Your task to perform on an android device: Go to sound settings Image 0: 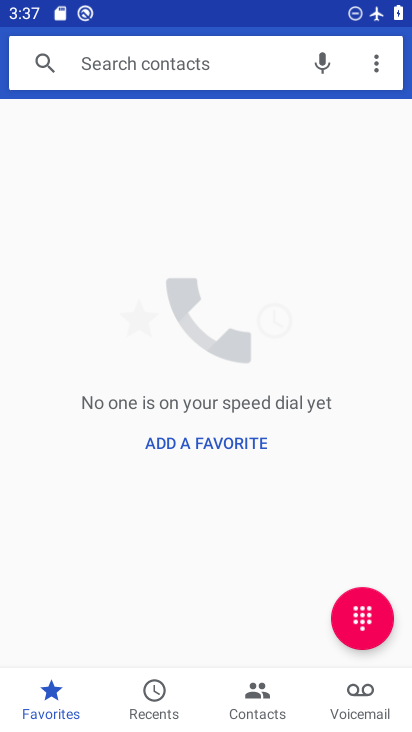
Step 0: press home button
Your task to perform on an android device: Go to sound settings Image 1: 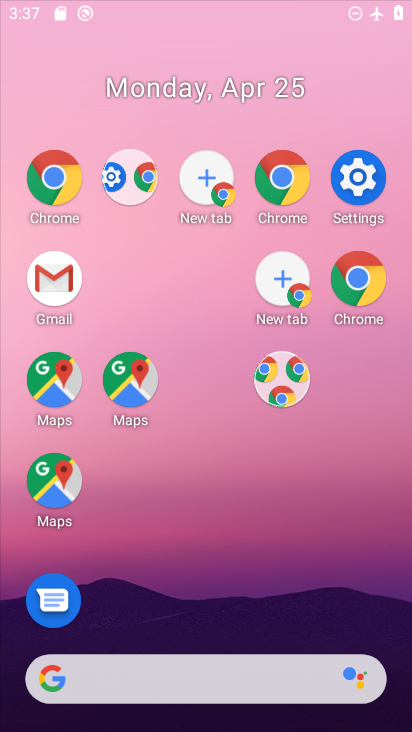
Step 1: press home button
Your task to perform on an android device: Go to sound settings Image 2: 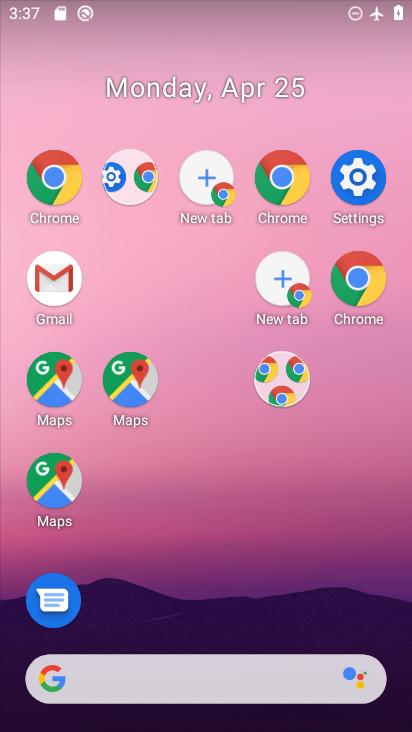
Step 2: press home button
Your task to perform on an android device: Go to sound settings Image 3: 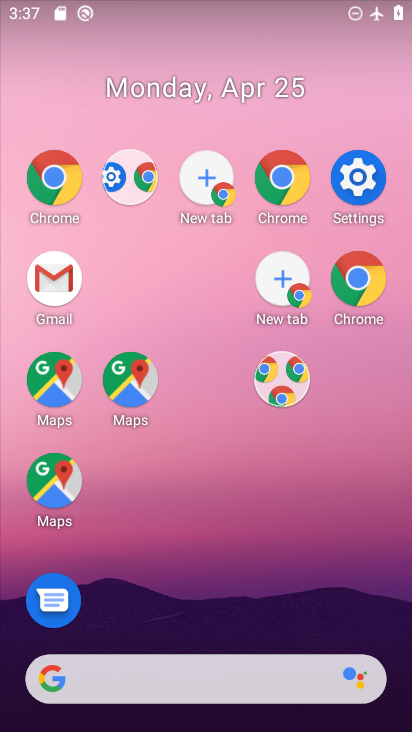
Step 3: drag from (196, 567) to (105, 103)
Your task to perform on an android device: Go to sound settings Image 4: 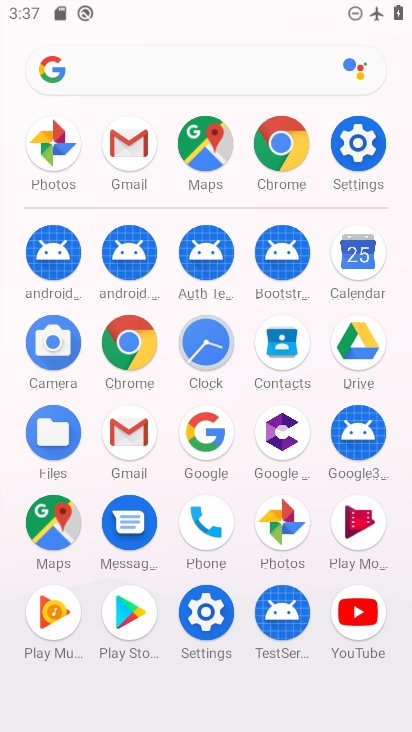
Step 4: click (364, 149)
Your task to perform on an android device: Go to sound settings Image 5: 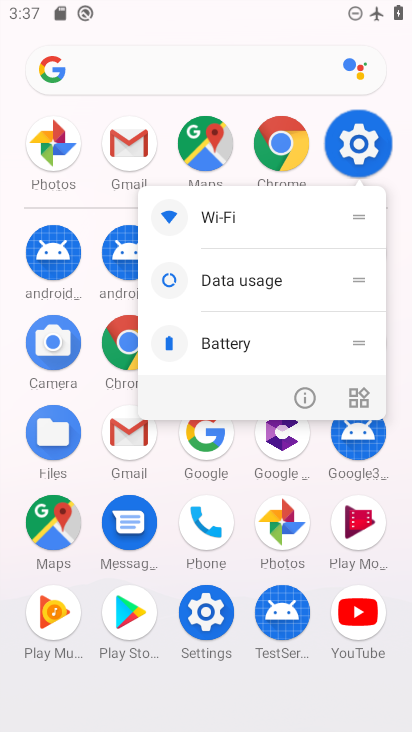
Step 5: click (347, 163)
Your task to perform on an android device: Go to sound settings Image 6: 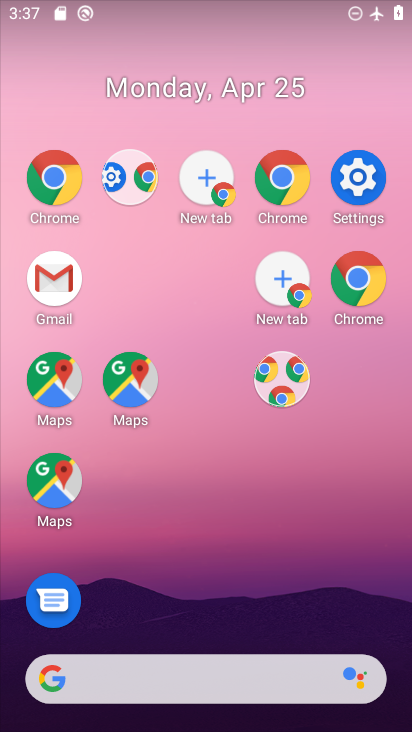
Step 6: drag from (195, 675) to (247, 7)
Your task to perform on an android device: Go to sound settings Image 7: 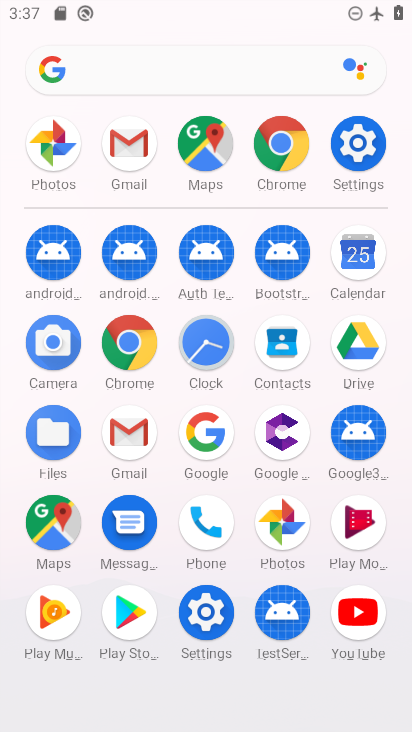
Step 7: click (362, 142)
Your task to perform on an android device: Go to sound settings Image 8: 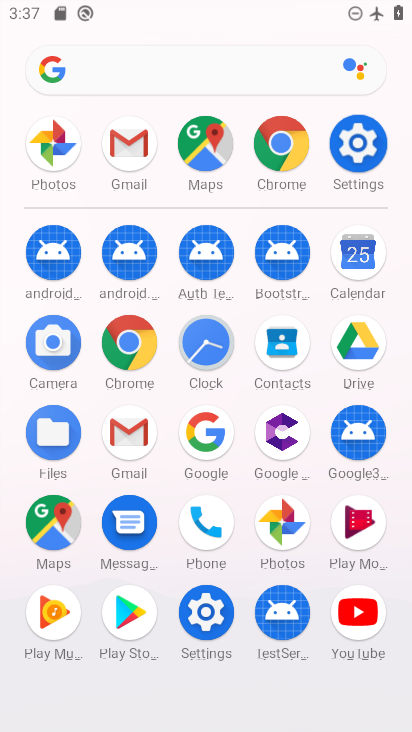
Step 8: click (364, 140)
Your task to perform on an android device: Go to sound settings Image 9: 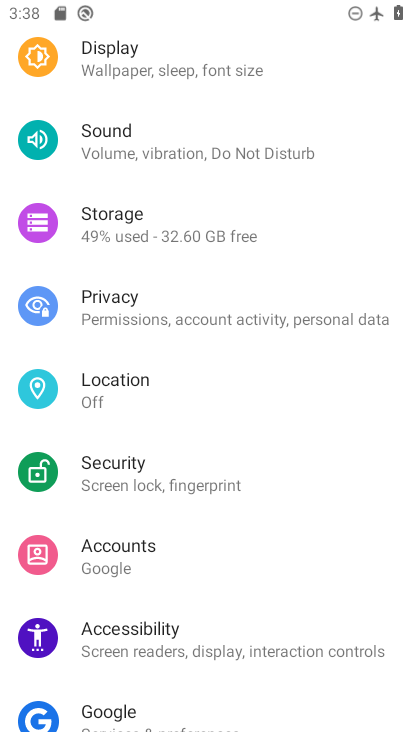
Step 9: click (106, 151)
Your task to perform on an android device: Go to sound settings Image 10: 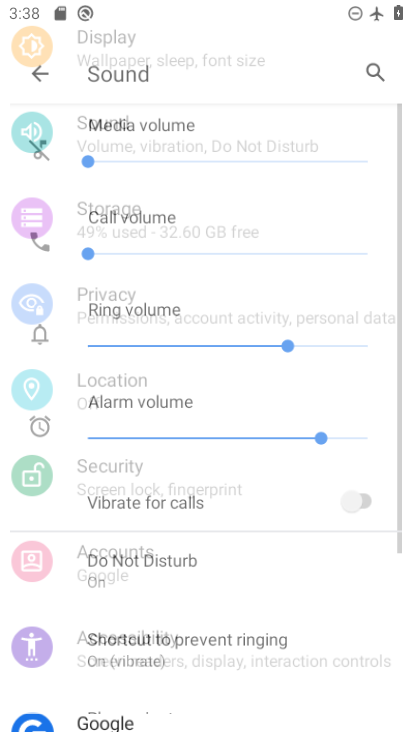
Step 10: click (106, 151)
Your task to perform on an android device: Go to sound settings Image 11: 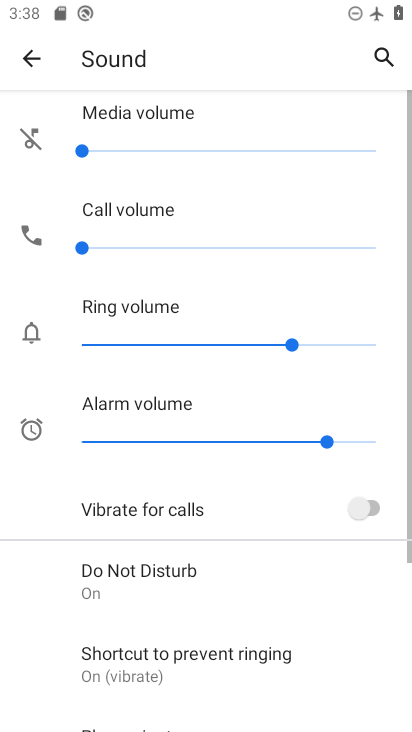
Step 11: click (106, 151)
Your task to perform on an android device: Go to sound settings Image 12: 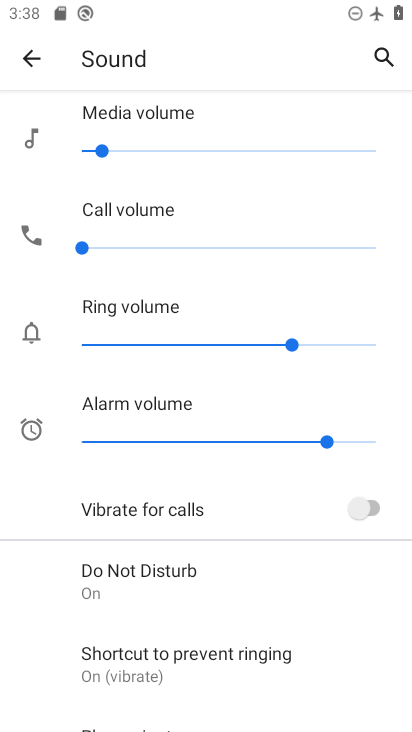
Step 12: click (158, 576)
Your task to perform on an android device: Go to sound settings Image 13: 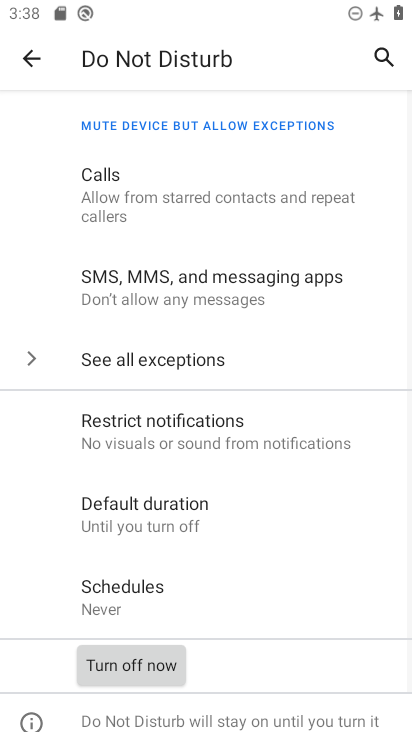
Step 13: click (114, 659)
Your task to perform on an android device: Go to sound settings Image 14: 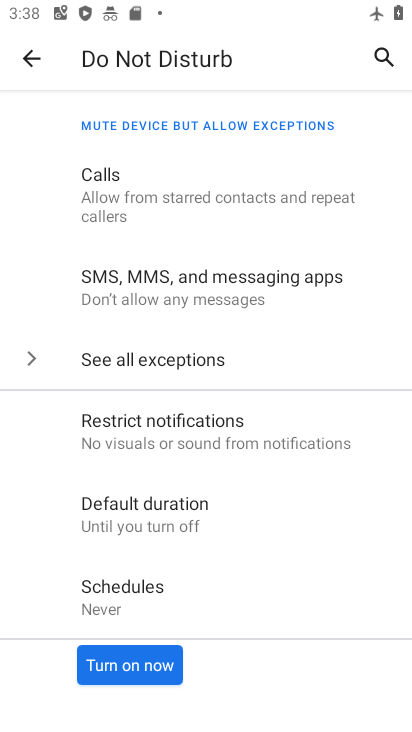
Step 14: task complete